Your task to perform on an android device: Open wifi settings Image 0: 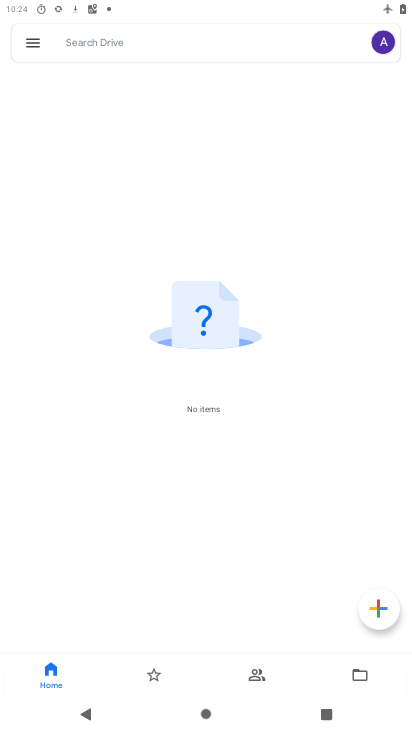
Step 0: press home button
Your task to perform on an android device: Open wifi settings Image 1: 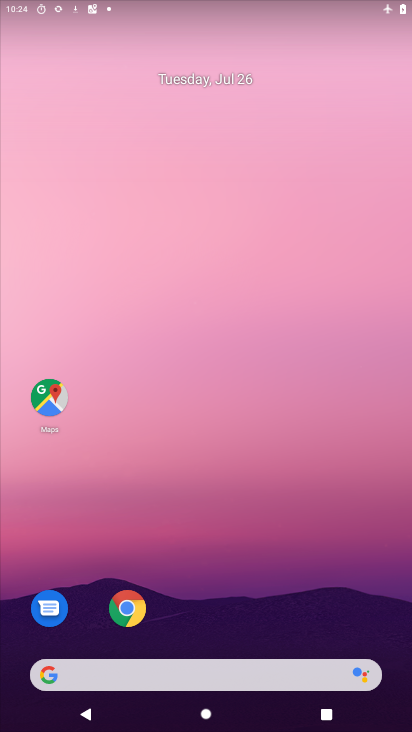
Step 1: drag from (191, 626) to (194, 145)
Your task to perform on an android device: Open wifi settings Image 2: 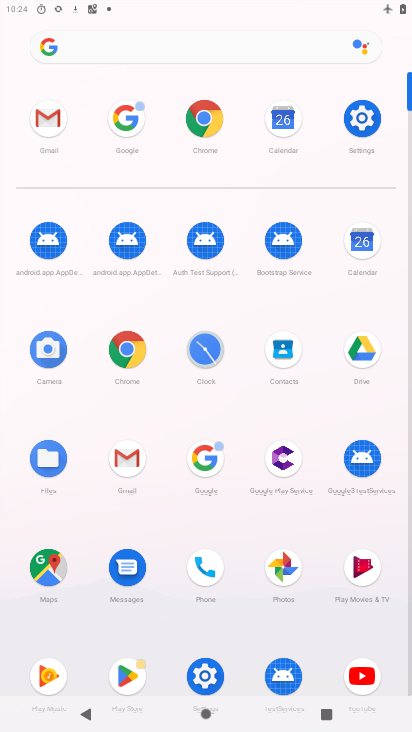
Step 2: click (369, 131)
Your task to perform on an android device: Open wifi settings Image 3: 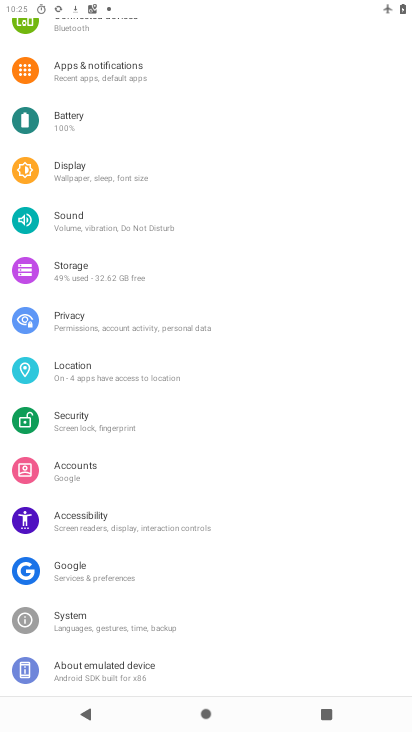
Step 3: drag from (157, 121) to (201, 438)
Your task to perform on an android device: Open wifi settings Image 4: 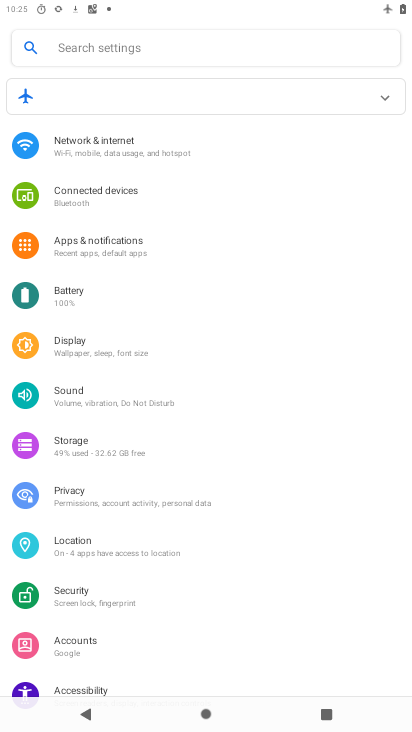
Step 4: click (130, 156)
Your task to perform on an android device: Open wifi settings Image 5: 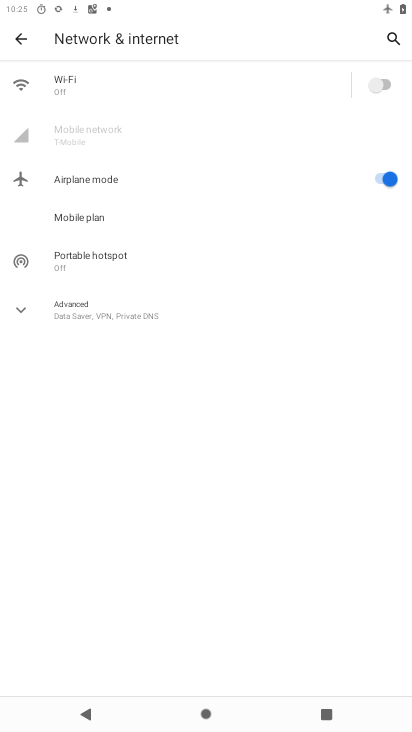
Step 5: click (92, 97)
Your task to perform on an android device: Open wifi settings Image 6: 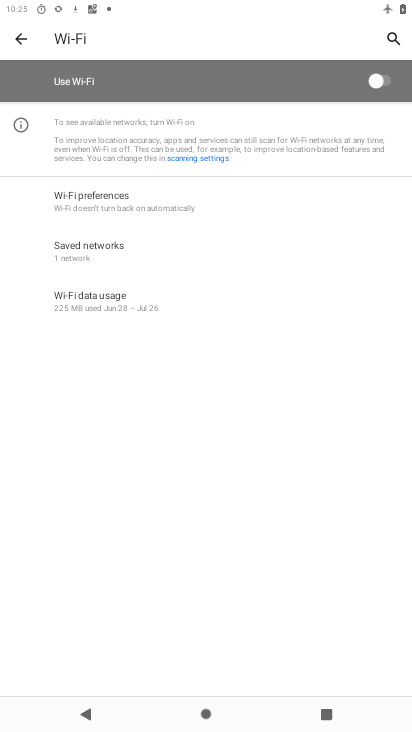
Step 6: task complete